Your task to perform on an android device: change the clock display to digital Image 0: 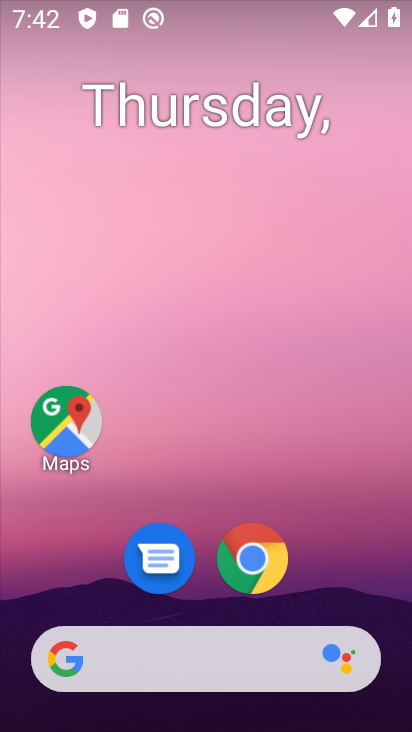
Step 0: drag from (170, 622) to (189, 97)
Your task to perform on an android device: change the clock display to digital Image 1: 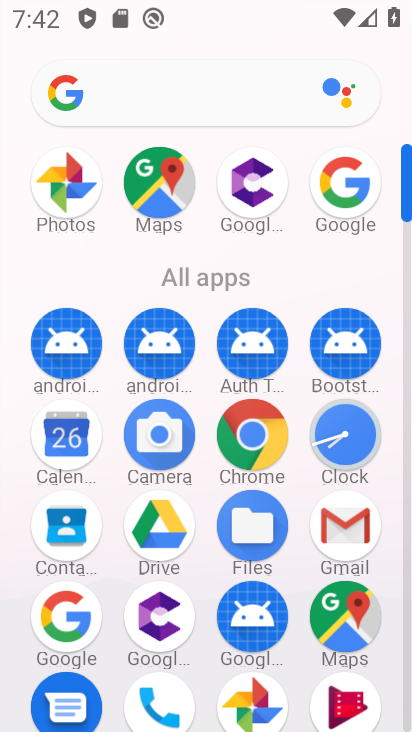
Step 1: click (73, 612)
Your task to perform on an android device: change the clock display to digital Image 2: 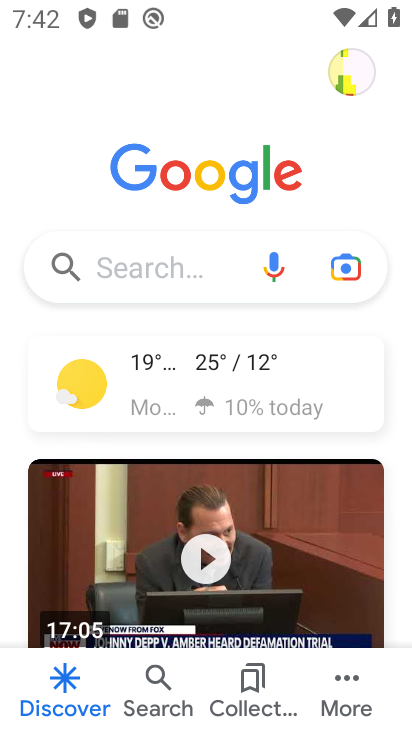
Step 2: click (146, 263)
Your task to perform on an android device: change the clock display to digital Image 3: 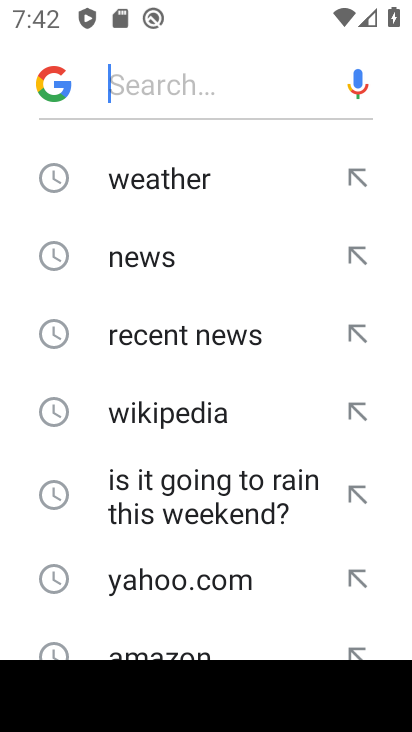
Step 3: press home button
Your task to perform on an android device: change the clock display to digital Image 4: 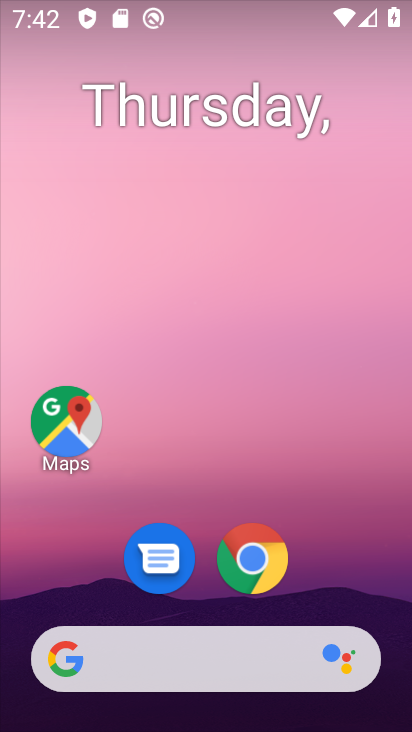
Step 4: drag from (217, 625) to (272, 69)
Your task to perform on an android device: change the clock display to digital Image 5: 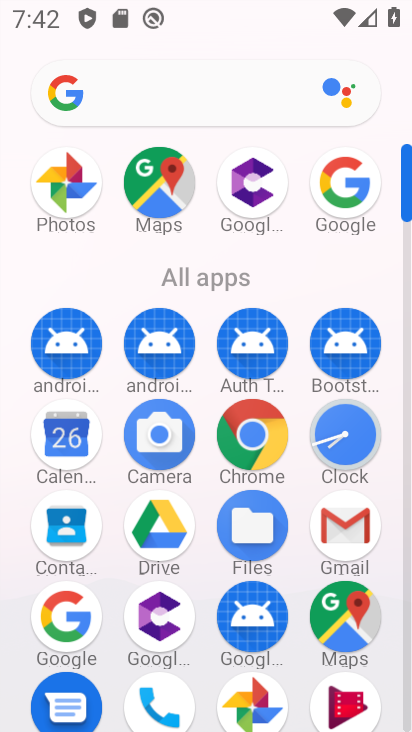
Step 5: click (344, 444)
Your task to perform on an android device: change the clock display to digital Image 6: 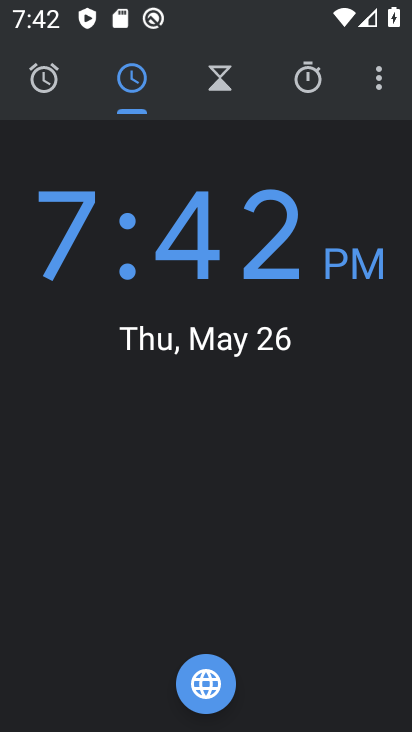
Step 6: click (378, 83)
Your task to perform on an android device: change the clock display to digital Image 7: 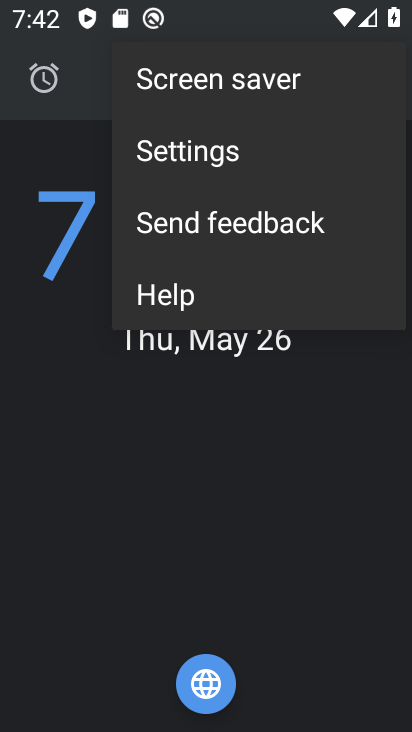
Step 7: click (212, 159)
Your task to perform on an android device: change the clock display to digital Image 8: 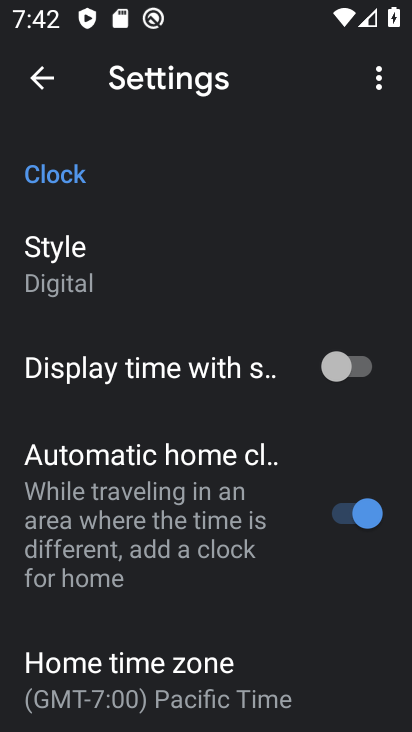
Step 8: click (34, 300)
Your task to perform on an android device: change the clock display to digital Image 9: 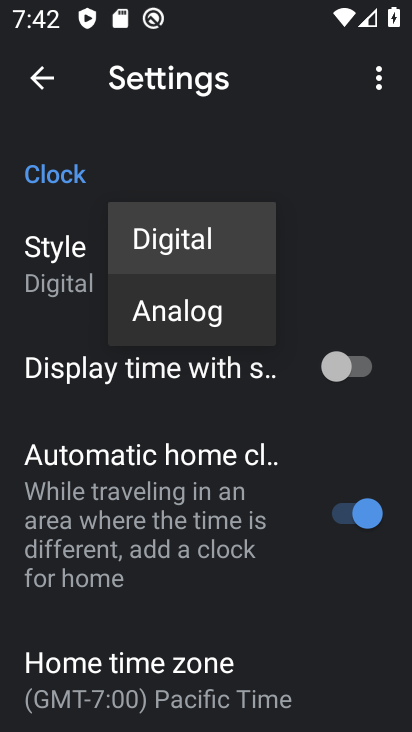
Step 9: task complete